Your task to perform on an android device: Open my contact list Image 0: 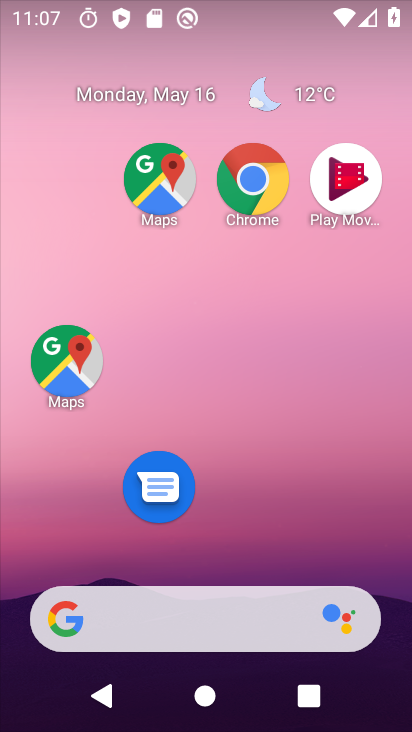
Step 0: drag from (269, 444) to (279, 106)
Your task to perform on an android device: Open my contact list Image 1: 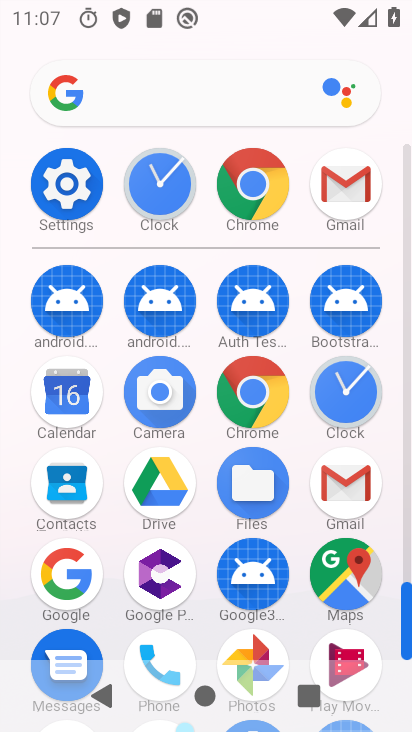
Step 1: click (63, 506)
Your task to perform on an android device: Open my contact list Image 2: 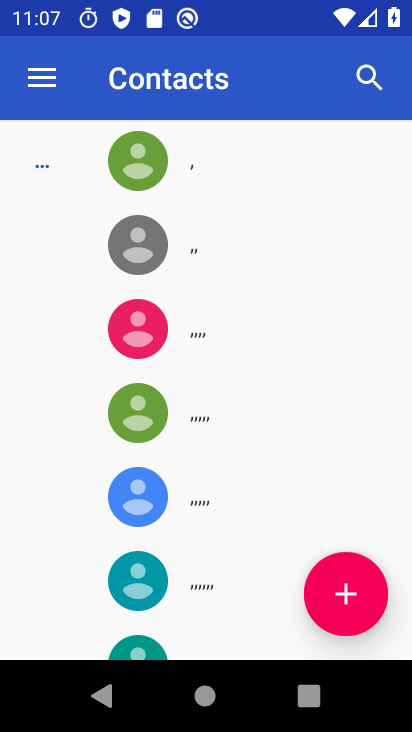
Step 2: task complete